Your task to perform on an android device: Search for sushi restaurants on Maps Image 0: 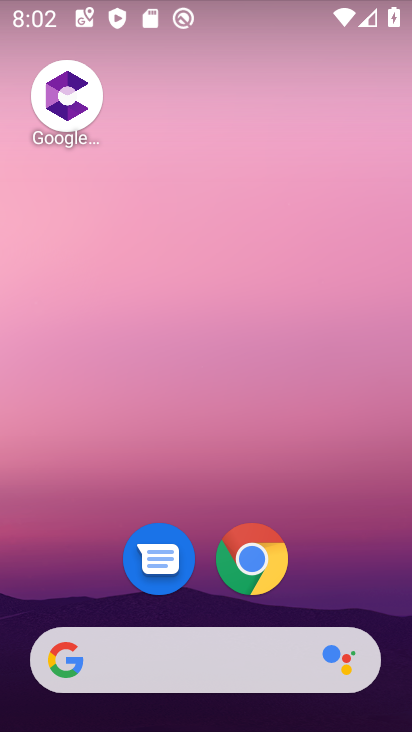
Step 0: drag from (306, 558) to (322, 221)
Your task to perform on an android device: Search for sushi restaurants on Maps Image 1: 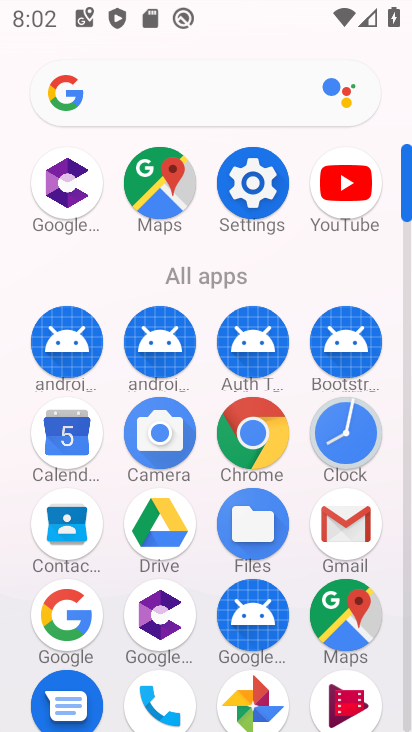
Step 1: click (341, 604)
Your task to perform on an android device: Search for sushi restaurants on Maps Image 2: 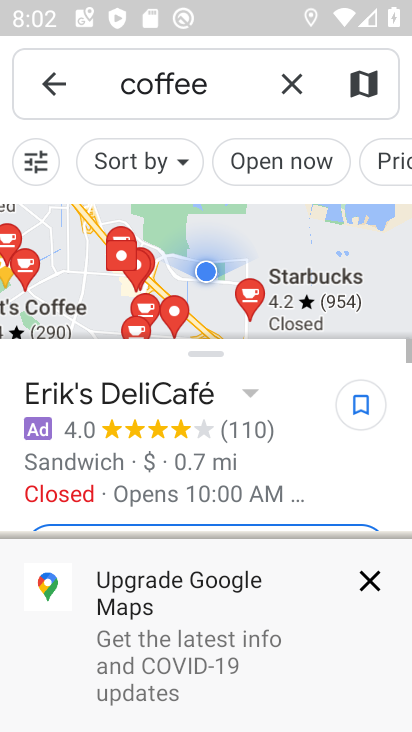
Step 2: click (271, 85)
Your task to perform on an android device: Search for sushi restaurants on Maps Image 3: 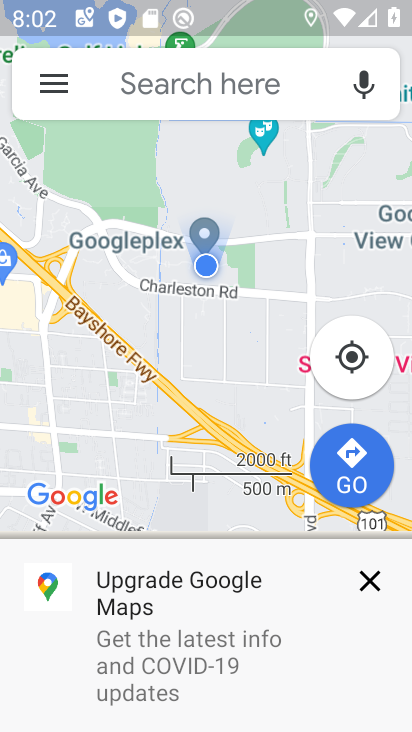
Step 3: click (233, 82)
Your task to perform on an android device: Search for sushi restaurants on Maps Image 4: 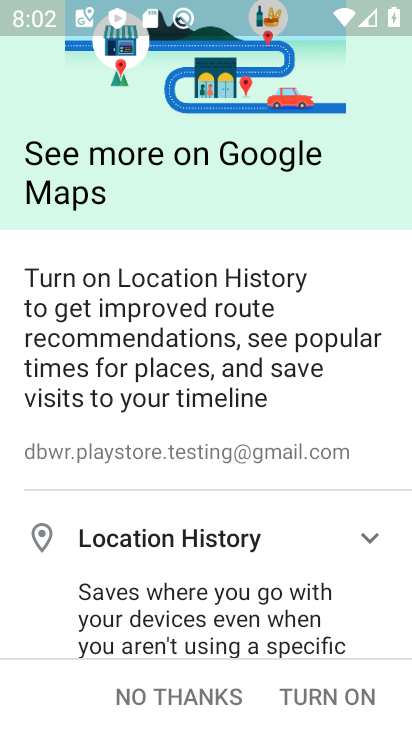
Step 4: click (175, 681)
Your task to perform on an android device: Search for sushi restaurants on Maps Image 5: 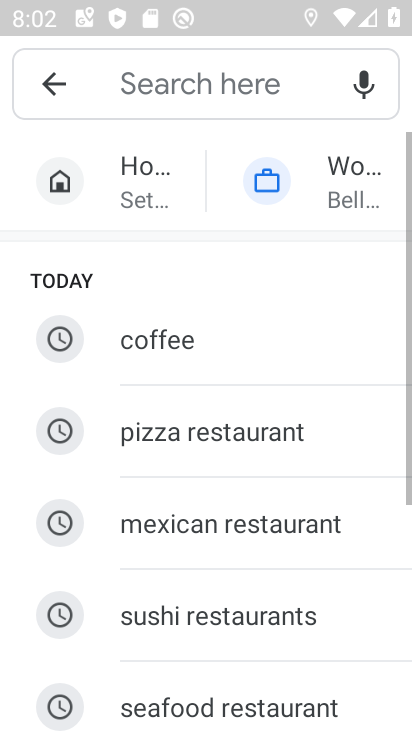
Step 5: click (207, 611)
Your task to perform on an android device: Search for sushi restaurants on Maps Image 6: 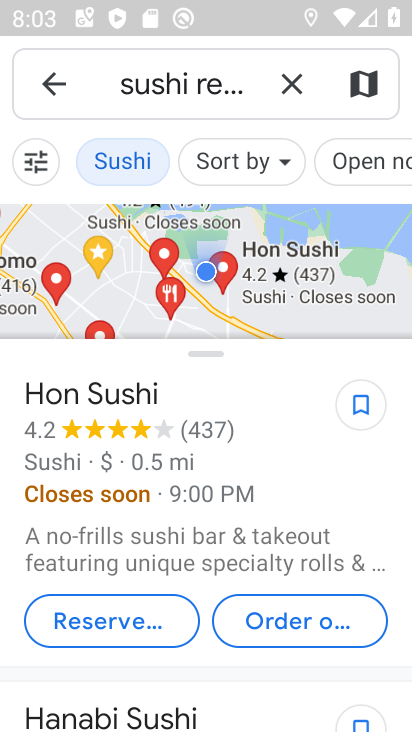
Step 6: task complete